Your task to perform on an android device: toggle priority inbox in the gmail app Image 0: 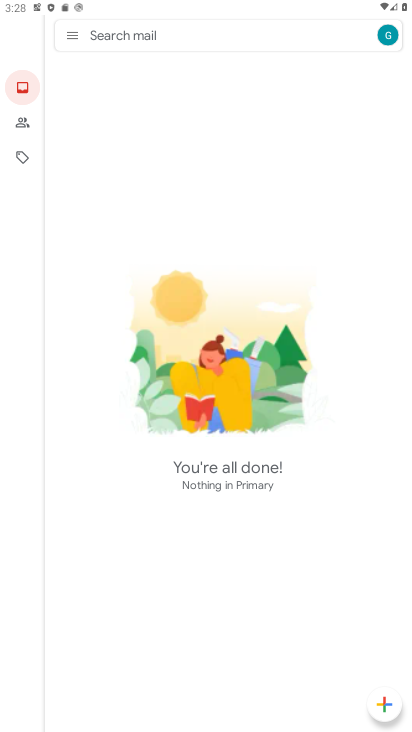
Step 0: press home button
Your task to perform on an android device: toggle priority inbox in the gmail app Image 1: 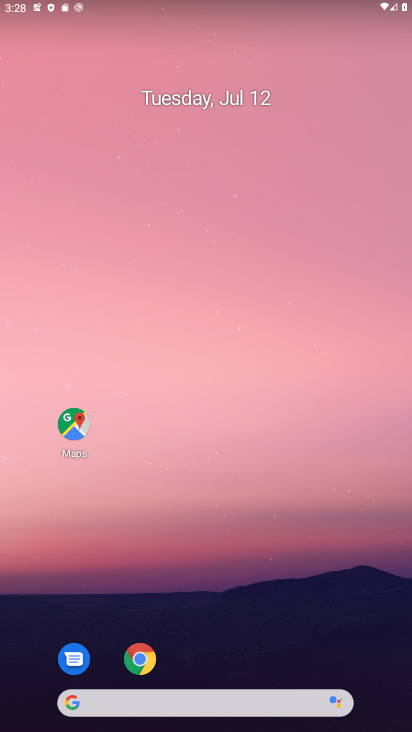
Step 1: drag from (231, 728) to (216, 107)
Your task to perform on an android device: toggle priority inbox in the gmail app Image 2: 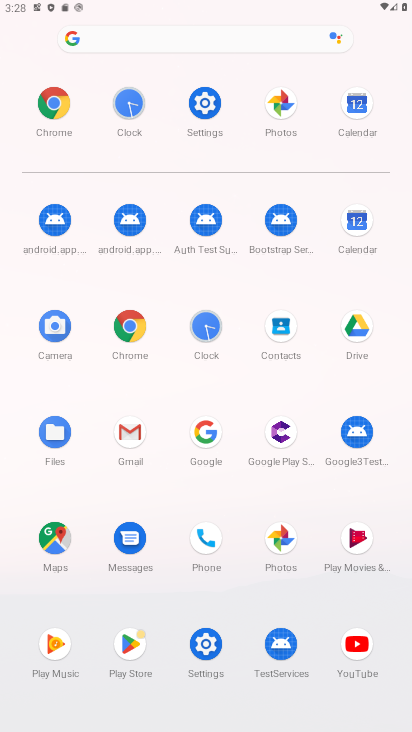
Step 2: click (140, 435)
Your task to perform on an android device: toggle priority inbox in the gmail app Image 3: 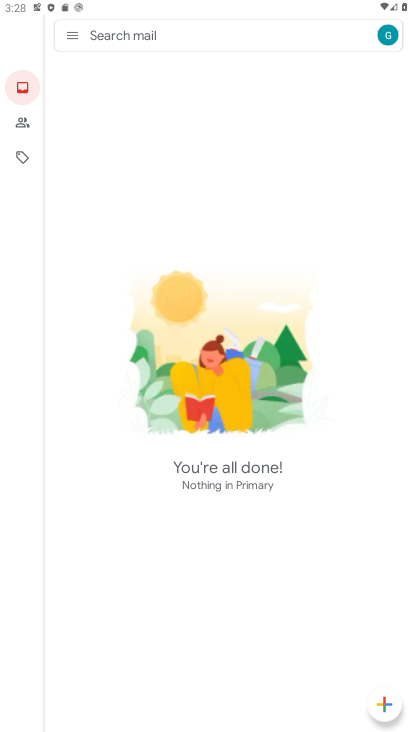
Step 3: click (68, 38)
Your task to perform on an android device: toggle priority inbox in the gmail app Image 4: 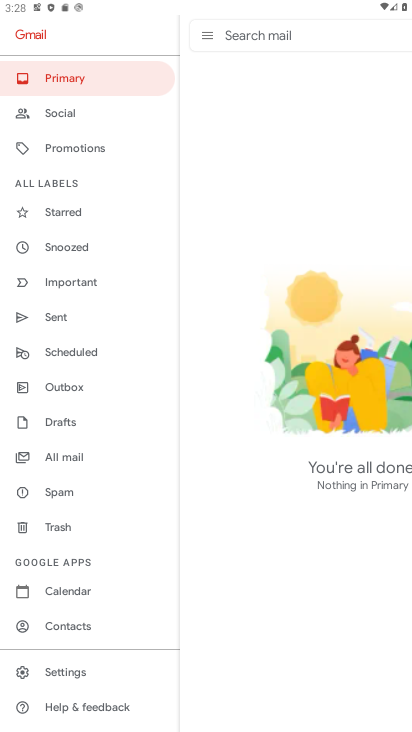
Step 4: click (71, 671)
Your task to perform on an android device: toggle priority inbox in the gmail app Image 5: 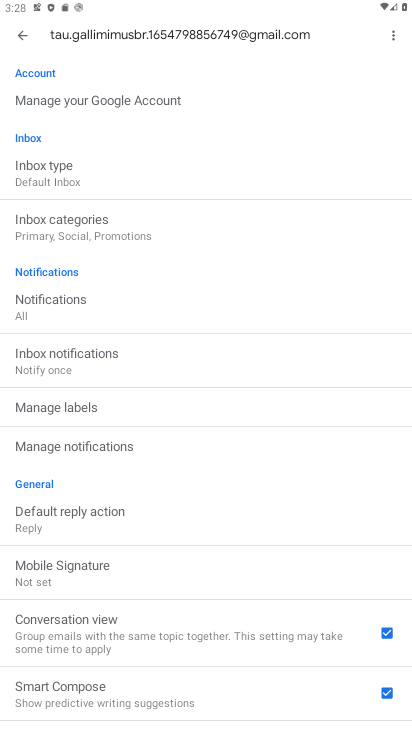
Step 5: click (44, 176)
Your task to perform on an android device: toggle priority inbox in the gmail app Image 6: 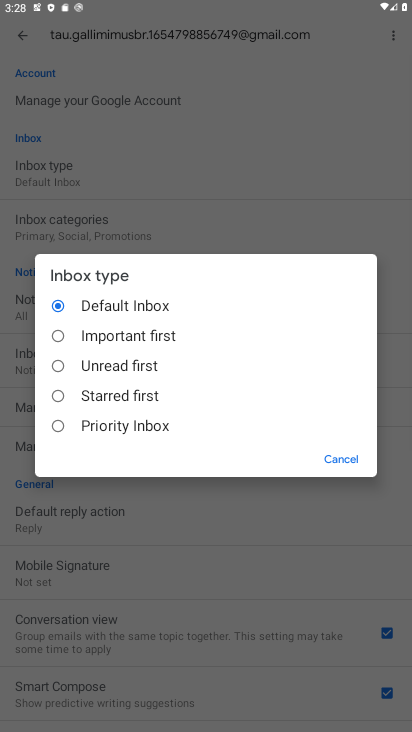
Step 6: click (58, 424)
Your task to perform on an android device: toggle priority inbox in the gmail app Image 7: 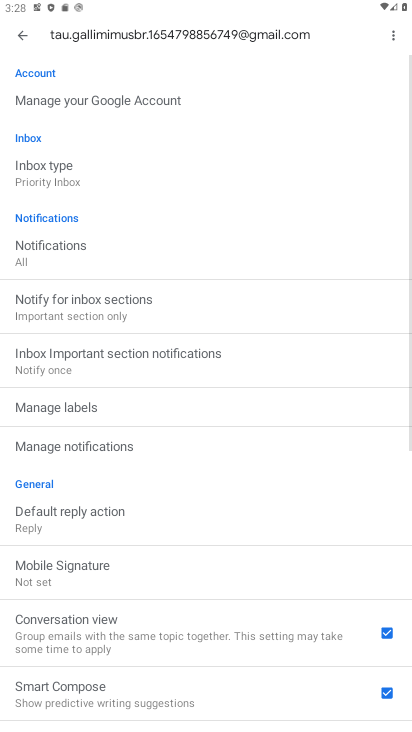
Step 7: task complete